Your task to perform on an android device: uninstall "Etsy: Buy & Sell Unique Items" Image 0: 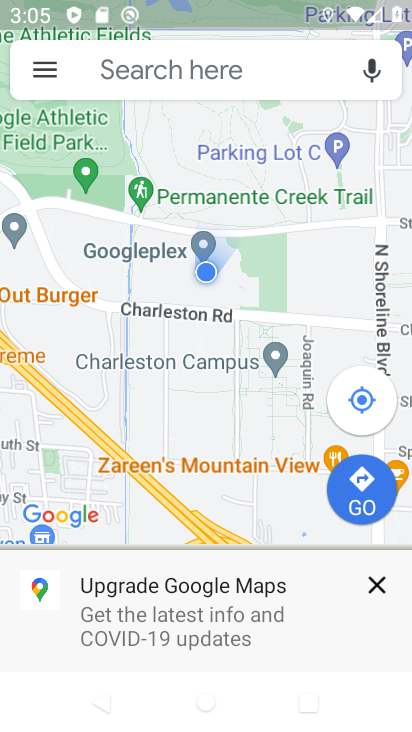
Step 0: press home button
Your task to perform on an android device: uninstall "Etsy: Buy & Sell Unique Items" Image 1: 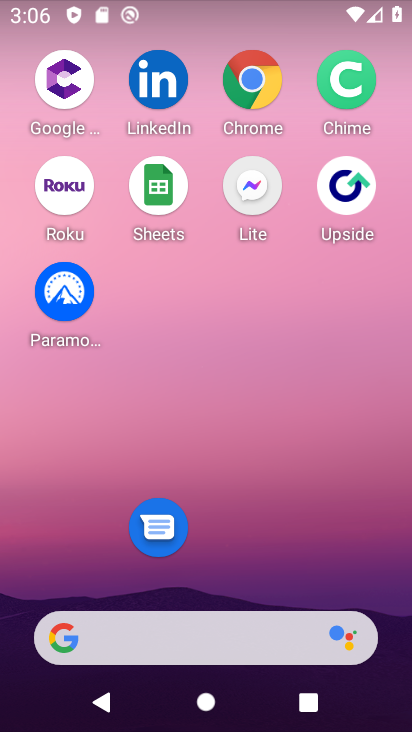
Step 1: drag from (269, 596) to (218, 102)
Your task to perform on an android device: uninstall "Etsy: Buy & Sell Unique Items" Image 2: 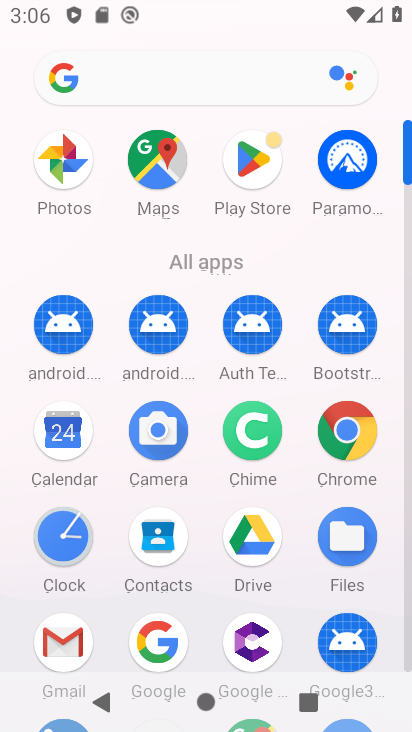
Step 2: click (239, 145)
Your task to perform on an android device: uninstall "Etsy: Buy & Sell Unique Items" Image 3: 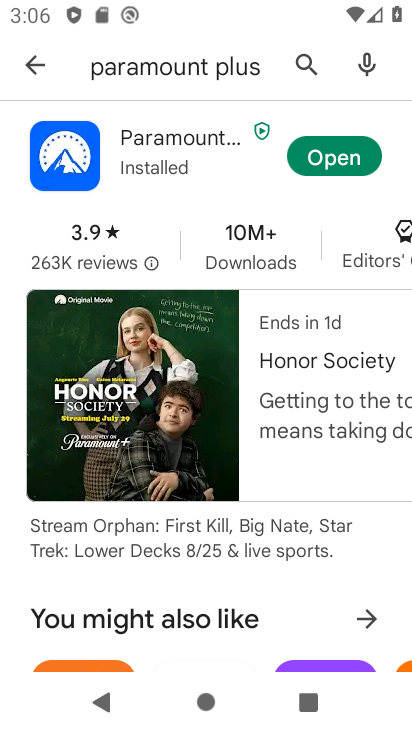
Step 3: click (303, 79)
Your task to perform on an android device: uninstall "Etsy: Buy & Sell Unique Items" Image 4: 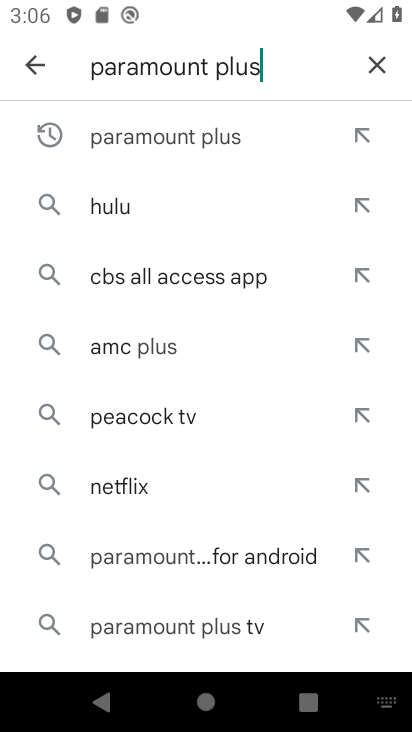
Step 4: click (368, 71)
Your task to perform on an android device: uninstall "Etsy: Buy & Sell Unique Items" Image 5: 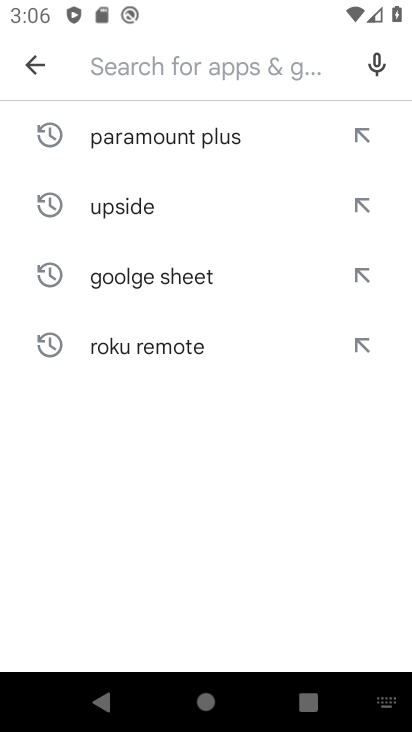
Step 5: type "esty"
Your task to perform on an android device: uninstall "Etsy: Buy & Sell Unique Items" Image 6: 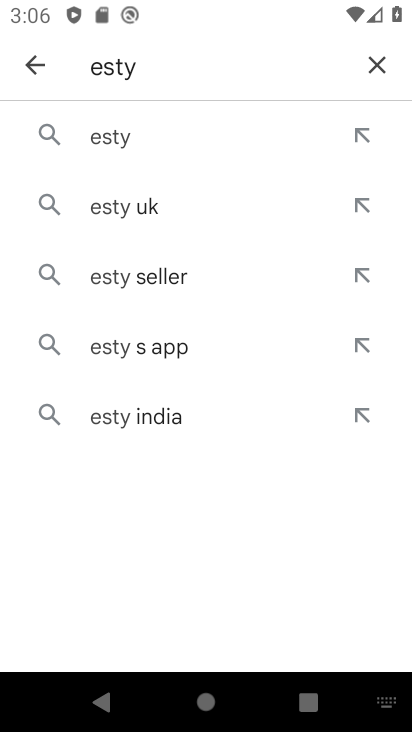
Step 6: click (175, 139)
Your task to perform on an android device: uninstall "Etsy: Buy & Sell Unique Items" Image 7: 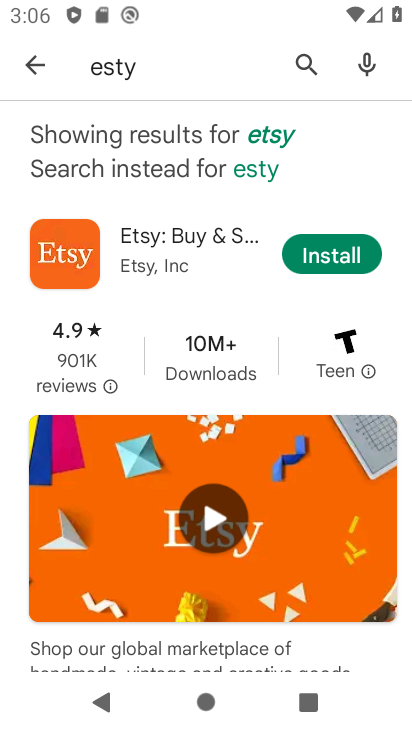
Step 7: click (334, 252)
Your task to perform on an android device: uninstall "Etsy: Buy & Sell Unique Items" Image 8: 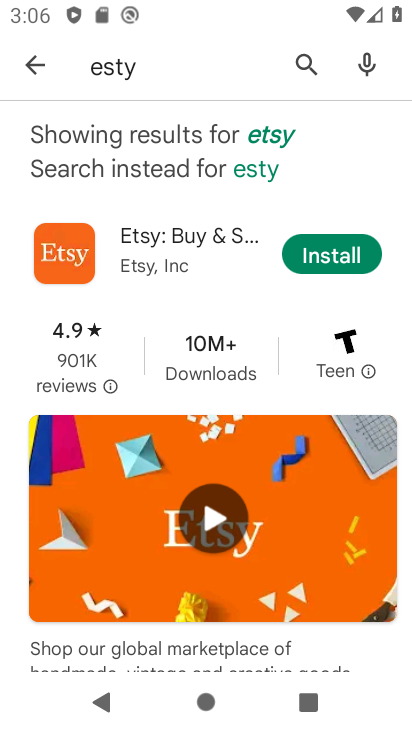
Step 8: task complete